Your task to perform on an android device: Go to Reddit.com Image 0: 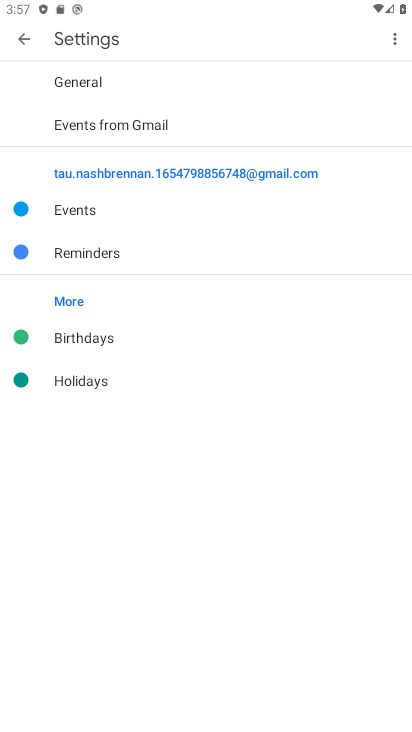
Step 0: press home button
Your task to perform on an android device: Go to Reddit.com Image 1: 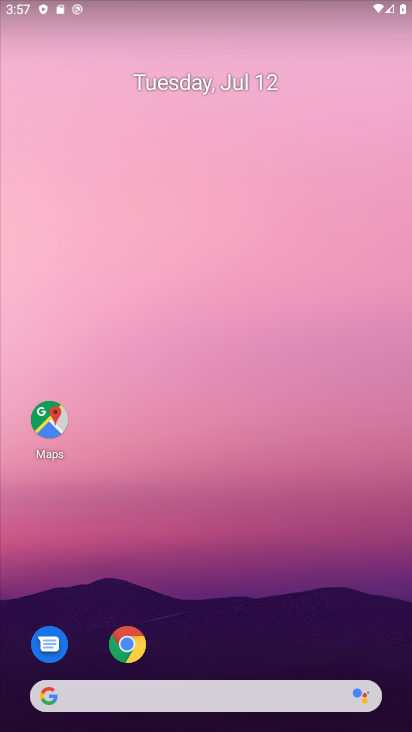
Step 1: click (139, 652)
Your task to perform on an android device: Go to Reddit.com Image 2: 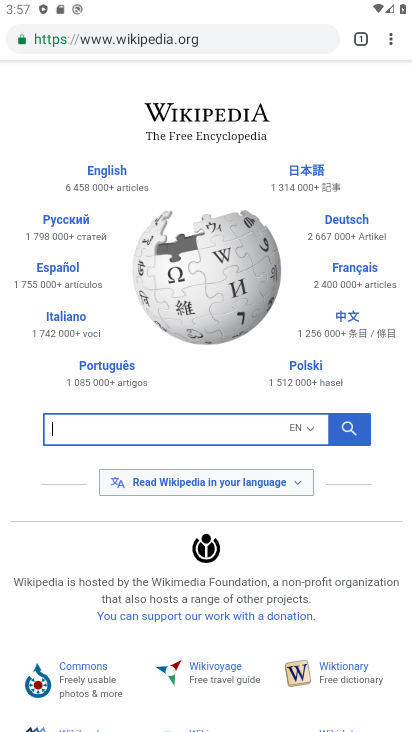
Step 2: click (135, 36)
Your task to perform on an android device: Go to Reddit.com Image 3: 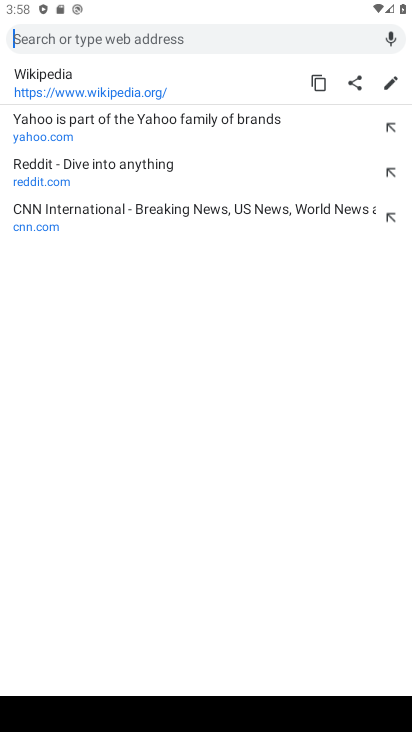
Step 3: type "reddit.com"
Your task to perform on an android device: Go to Reddit.com Image 4: 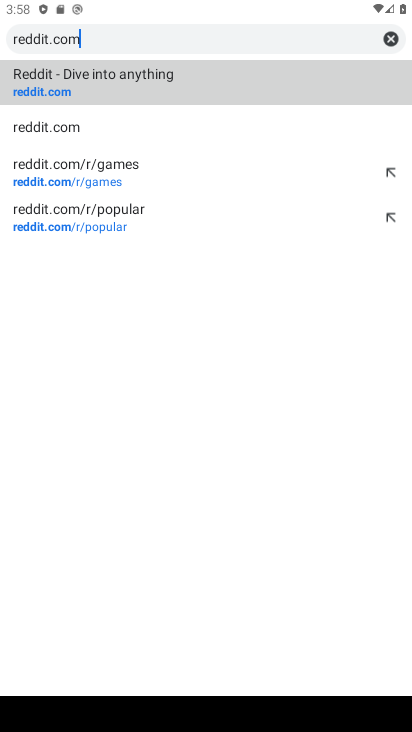
Step 4: click (98, 86)
Your task to perform on an android device: Go to Reddit.com Image 5: 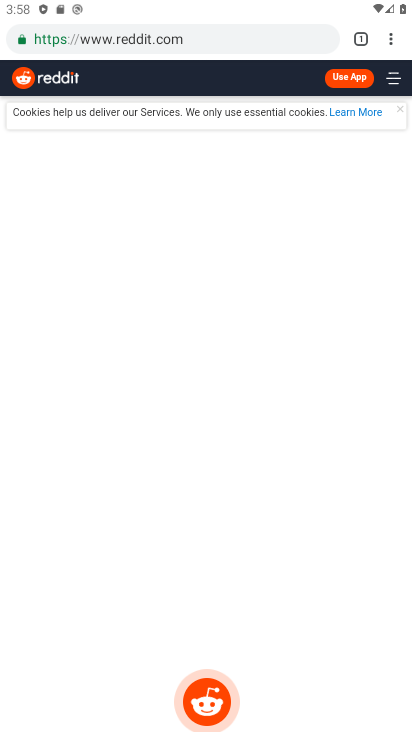
Step 5: task complete